Your task to perform on an android device: turn smart compose on in the gmail app Image 0: 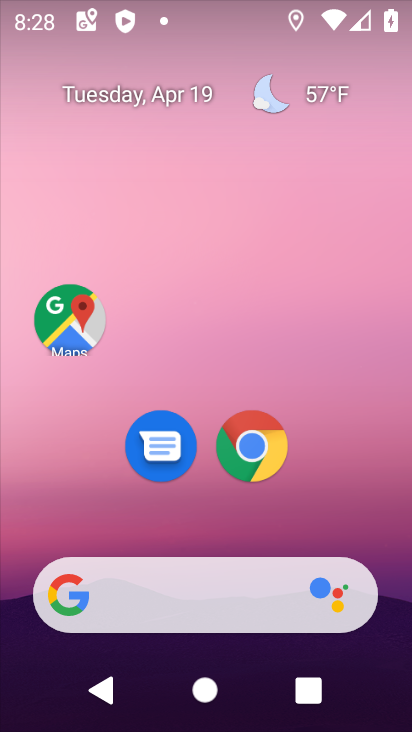
Step 0: drag from (366, 523) to (275, 117)
Your task to perform on an android device: turn smart compose on in the gmail app Image 1: 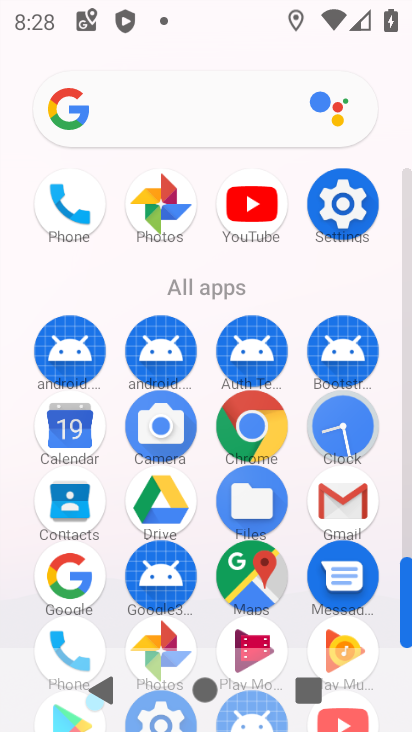
Step 1: click (345, 500)
Your task to perform on an android device: turn smart compose on in the gmail app Image 2: 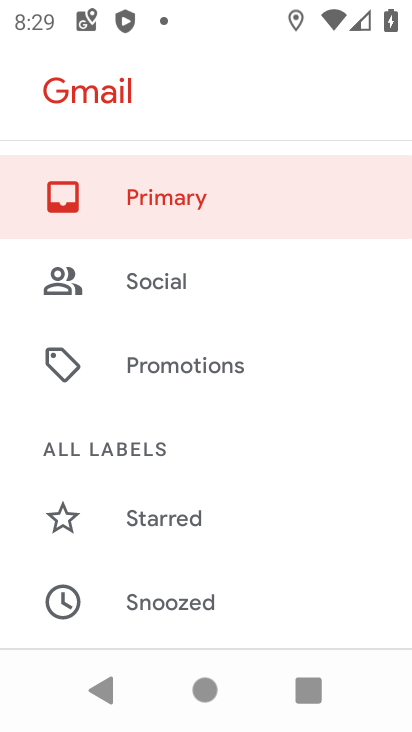
Step 2: drag from (201, 594) to (171, 130)
Your task to perform on an android device: turn smart compose on in the gmail app Image 3: 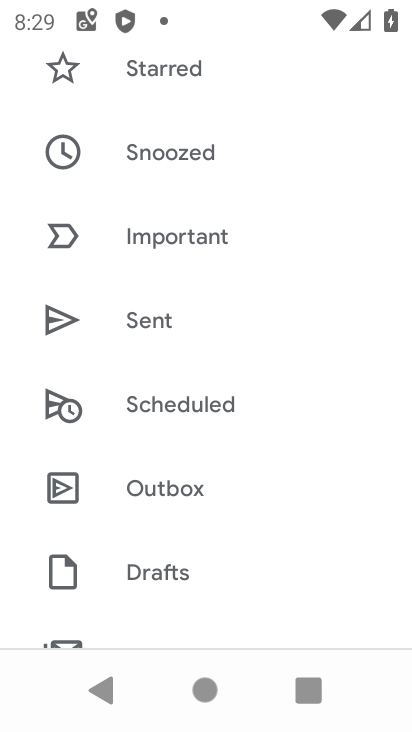
Step 3: drag from (196, 596) to (188, 123)
Your task to perform on an android device: turn smart compose on in the gmail app Image 4: 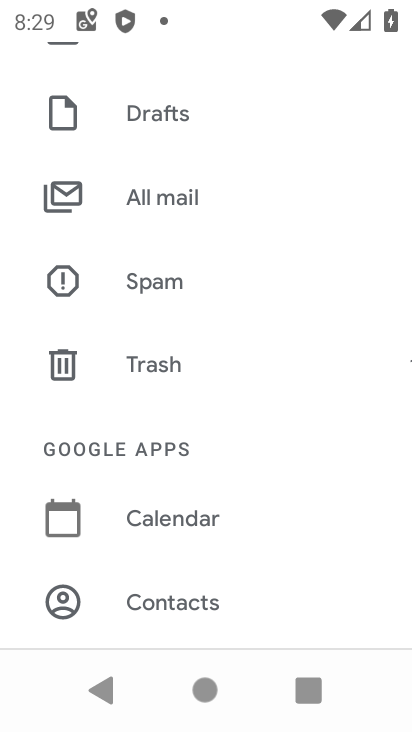
Step 4: drag from (163, 560) to (196, 212)
Your task to perform on an android device: turn smart compose on in the gmail app Image 5: 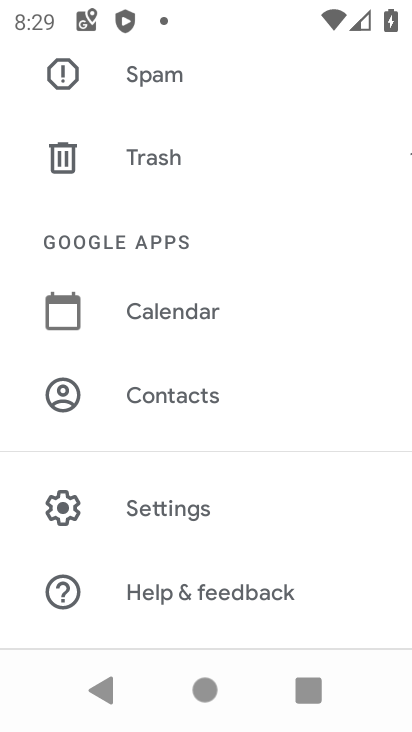
Step 5: click (145, 505)
Your task to perform on an android device: turn smart compose on in the gmail app Image 6: 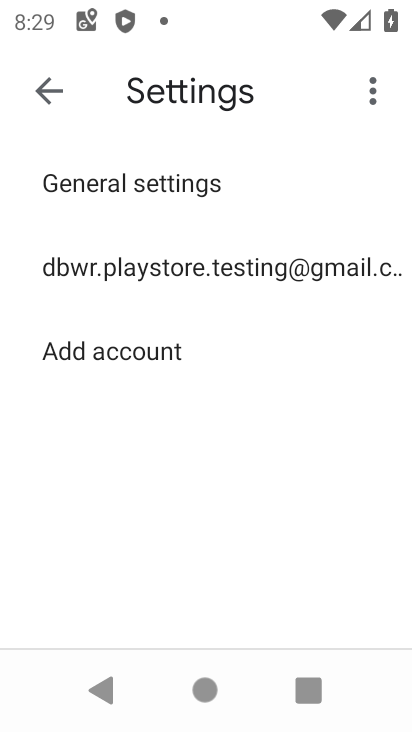
Step 6: click (198, 264)
Your task to perform on an android device: turn smart compose on in the gmail app Image 7: 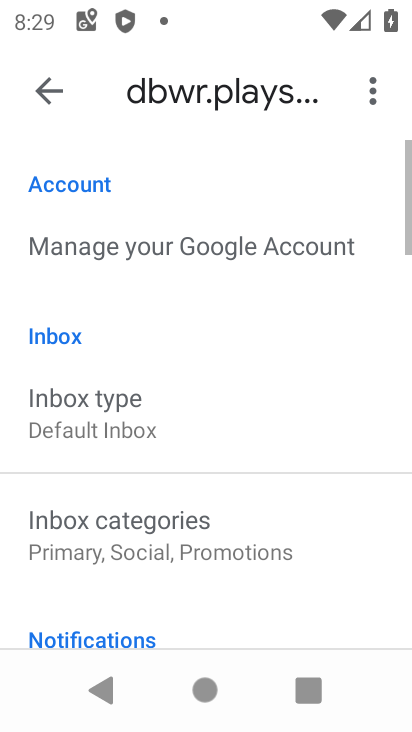
Step 7: task complete